Your task to perform on an android device: Open wifi settings Image 0: 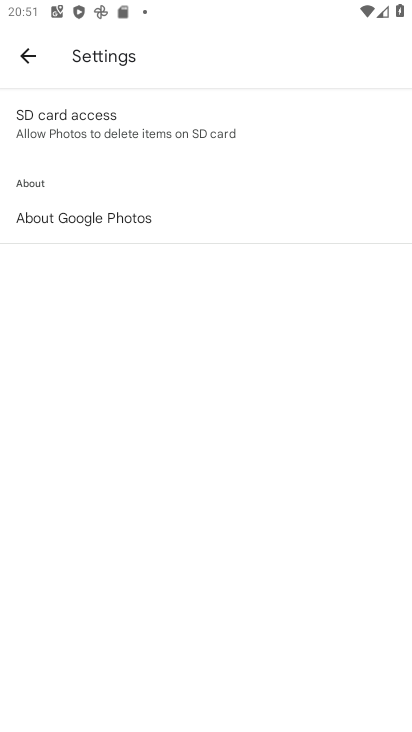
Step 0: press home button
Your task to perform on an android device: Open wifi settings Image 1: 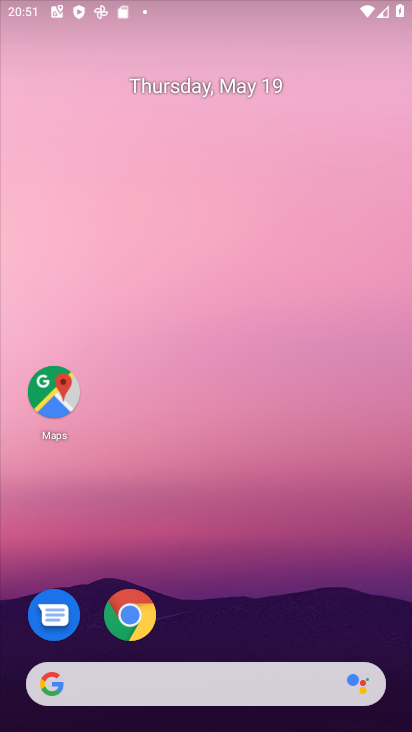
Step 1: drag from (236, 561) to (214, 56)
Your task to perform on an android device: Open wifi settings Image 2: 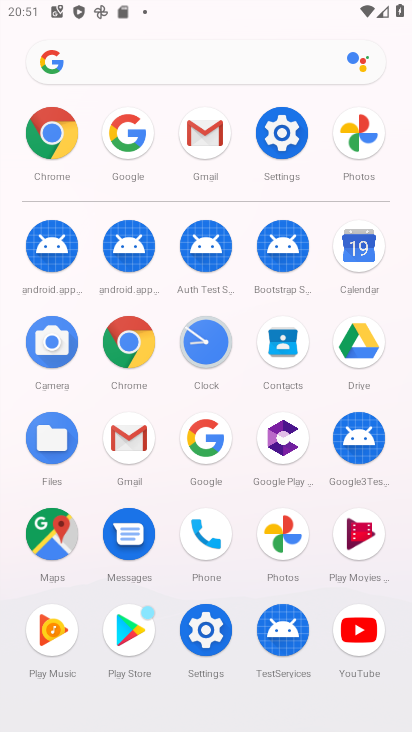
Step 2: click (283, 129)
Your task to perform on an android device: Open wifi settings Image 3: 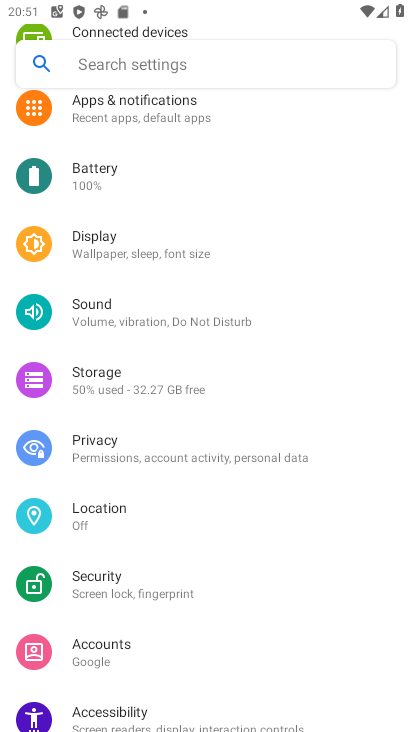
Step 3: drag from (190, 148) to (278, 578)
Your task to perform on an android device: Open wifi settings Image 4: 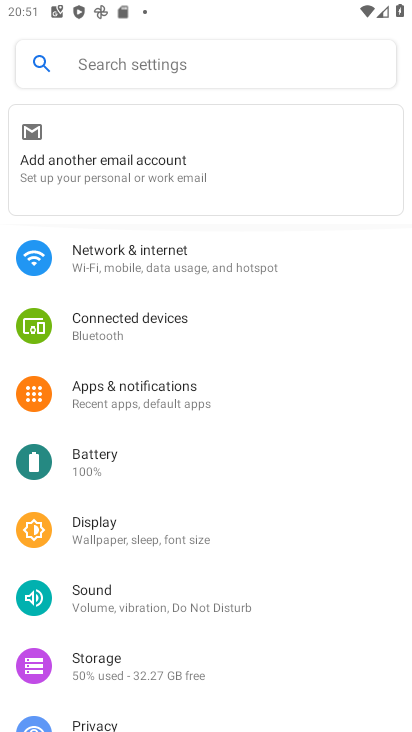
Step 4: click (157, 263)
Your task to perform on an android device: Open wifi settings Image 5: 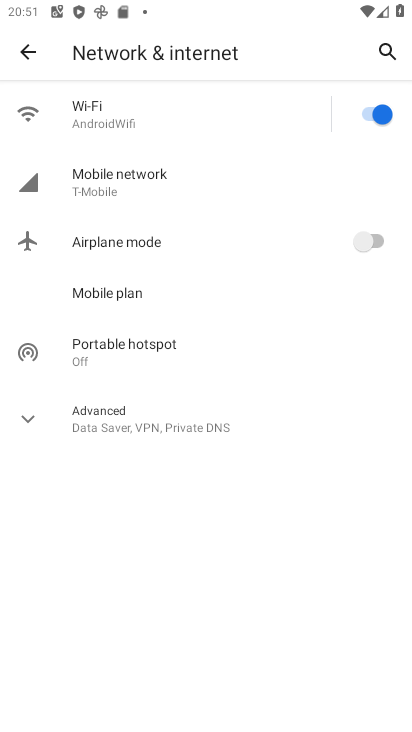
Step 5: click (142, 110)
Your task to perform on an android device: Open wifi settings Image 6: 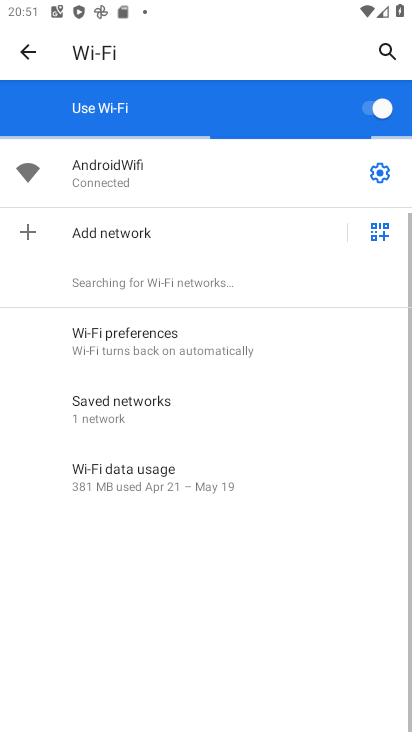
Step 6: click (376, 170)
Your task to perform on an android device: Open wifi settings Image 7: 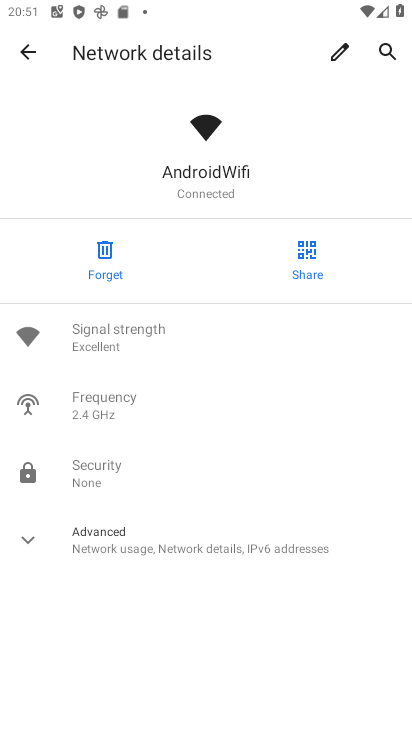
Step 7: task complete